Your task to perform on an android device: Is it going to rain this weekend? Image 0: 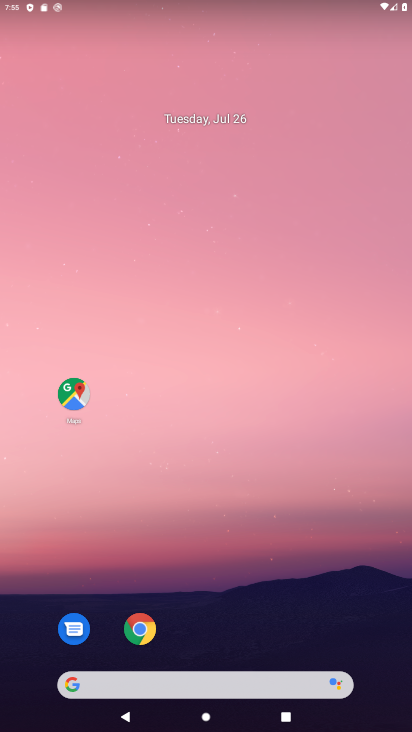
Step 0: press home button
Your task to perform on an android device: Is it going to rain this weekend? Image 1: 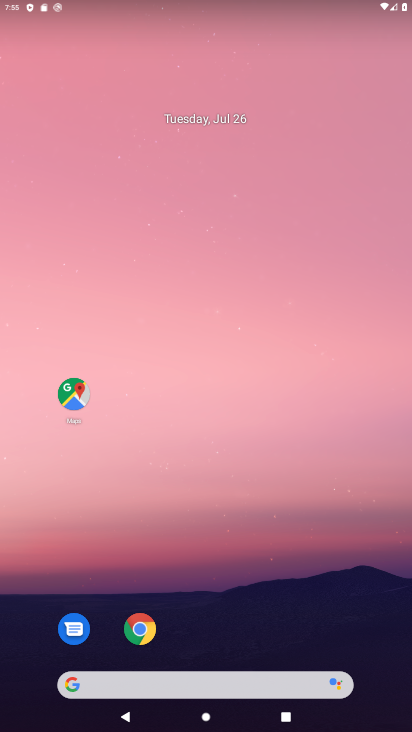
Step 1: drag from (15, 315) to (410, 313)
Your task to perform on an android device: Is it going to rain this weekend? Image 2: 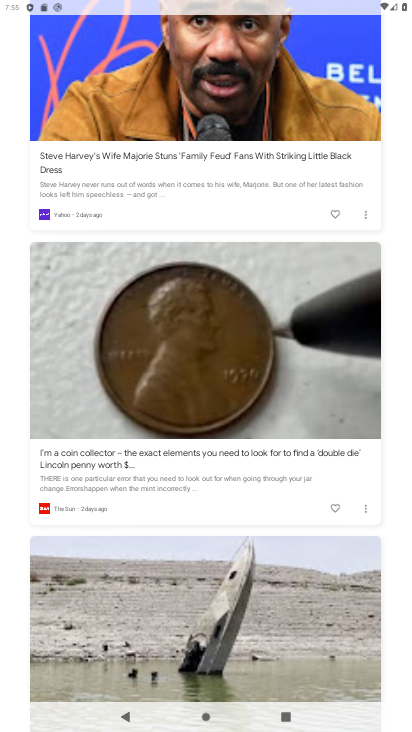
Step 2: drag from (207, 113) to (216, 561)
Your task to perform on an android device: Is it going to rain this weekend? Image 3: 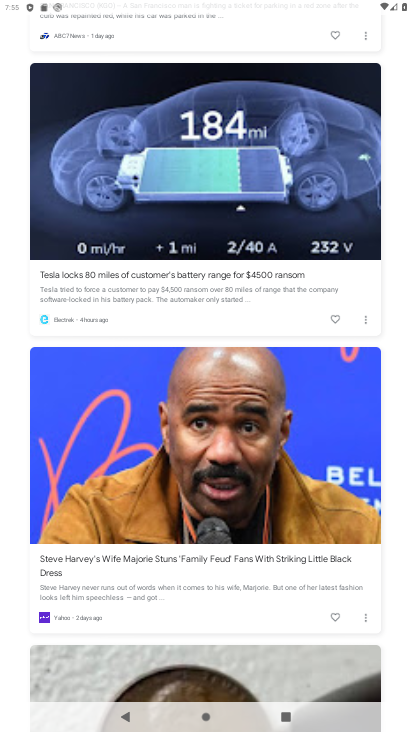
Step 3: drag from (230, 85) to (194, 618)
Your task to perform on an android device: Is it going to rain this weekend? Image 4: 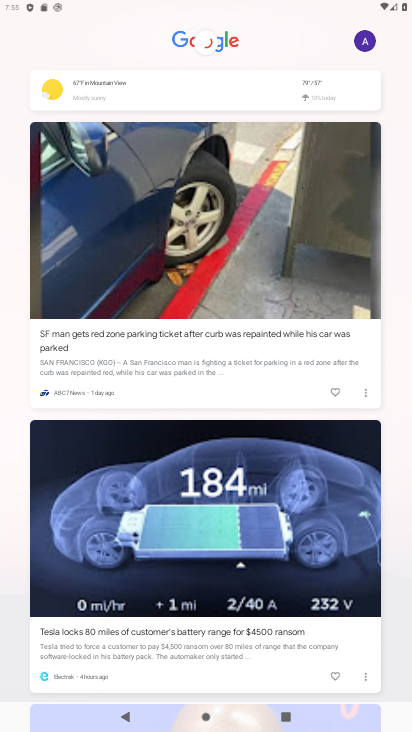
Step 4: click (312, 82)
Your task to perform on an android device: Is it going to rain this weekend? Image 5: 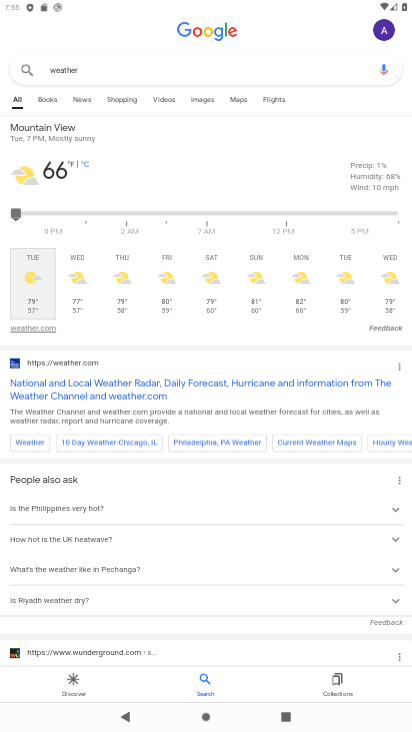
Step 5: click (209, 280)
Your task to perform on an android device: Is it going to rain this weekend? Image 6: 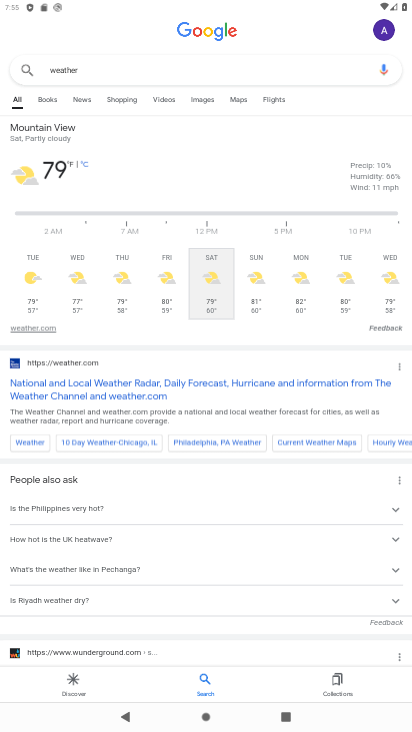
Step 6: task complete